Your task to perform on an android device: Clear the cart on newegg.com. Add macbook pro 13 inch to the cart on newegg.com, then select checkout. Image 0: 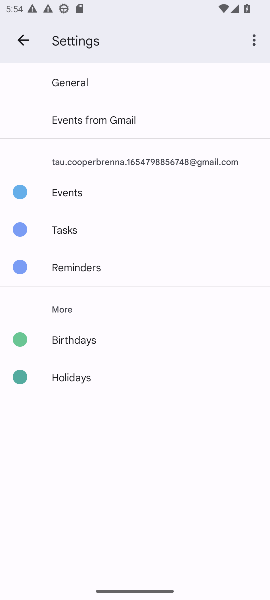
Step 0: press home button
Your task to perform on an android device: Clear the cart on newegg.com. Add macbook pro 13 inch to the cart on newegg.com, then select checkout. Image 1: 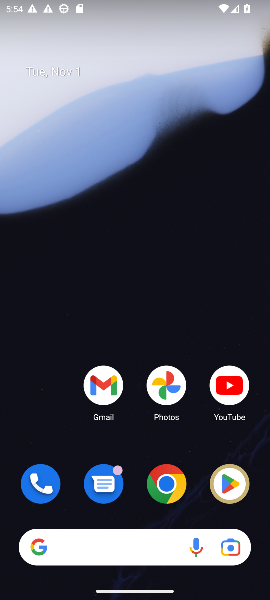
Step 1: click (172, 492)
Your task to perform on an android device: Clear the cart on newegg.com. Add macbook pro 13 inch to the cart on newegg.com, then select checkout. Image 2: 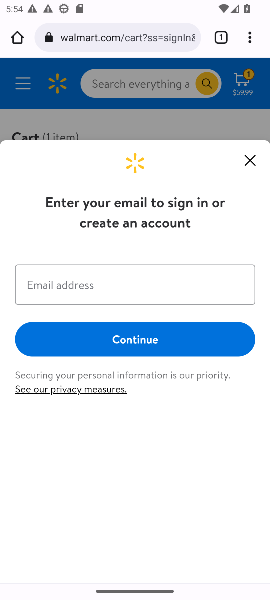
Step 2: click (141, 32)
Your task to perform on an android device: Clear the cart on newegg.com. Add macbook pro 13 inch to the cart on newegg.com, then select checkout. Image 3: 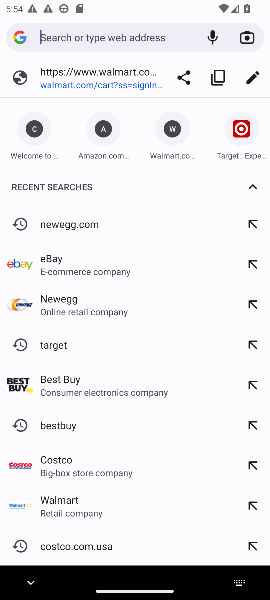
Step 3: type "newegg.com"
Your task to perform on an android device: Clear the cart on newegg.com. Add macbook pro 13 inch to the cart on newegg.com, then select checkout. Image 4: 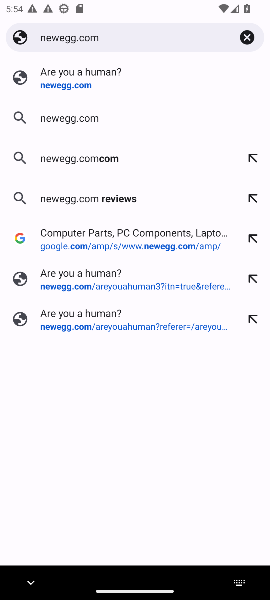
Step 4: click (82, 122)
Your task to perform on an android device: Clear the cart on newegg.com. Add macbook pro 13 inch to the cart on newegg.com, then select checkout. Image 5: 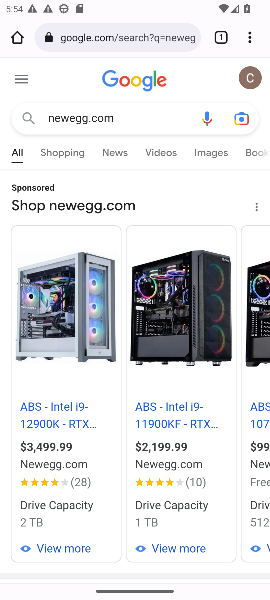
Step 5: drag from (95, 512) to (120, 277)
Your task to perform on an android device: Clear the cart on newegg.com. Add macbook pro 13 inch to the cart on newegg.com, then select checkout. Image 6: 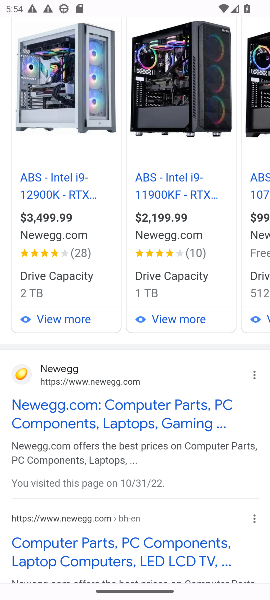
Step 6: click (84, 456)
Your task to perform on an android device: Clear the cart on newegg.com. Add macbook pro 13 inch to the cart on newegg.com, then select checkout. Image 7: 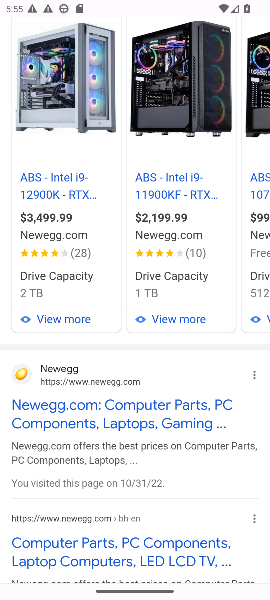
Step 7: click (107, 408)
Your task to perform on an android device: Clear the cart on newegg.com. Add macbook pro 13 inch to the cart on newegg.com, then select checkout. Image 8: 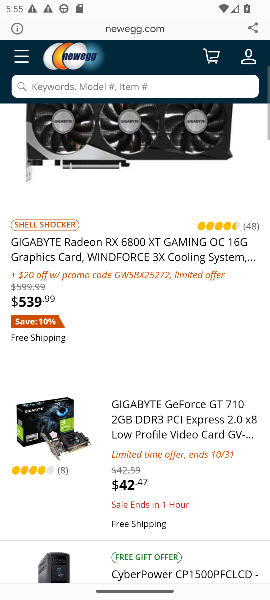
Step 8: click (115, 85)
Your task to perform on an android device: Clear the cart on newegg.com. Add macbook pro 13 inch to the cart on newegg.com, then select checkout. Image 9: 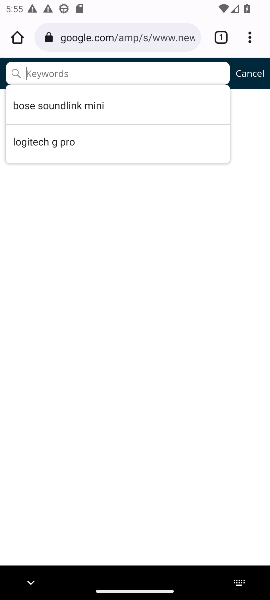
Step 9: type "macbook pro 13 inch"
Your task to perform on an android device: Clear the cart on newegg.com. Add macbook pro 13 inch to the cart on newegg.com, then select checkout. Image 10: 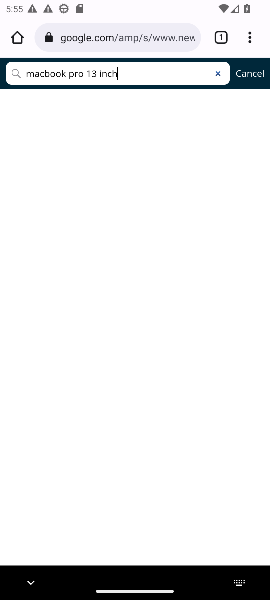
Step 10: click (10, 71)
Your task to perform on an android device: Clear the cart on newegg.com. Add macbook pro 13 inch to the cart on newegg.com, then select checkout. Image 11: 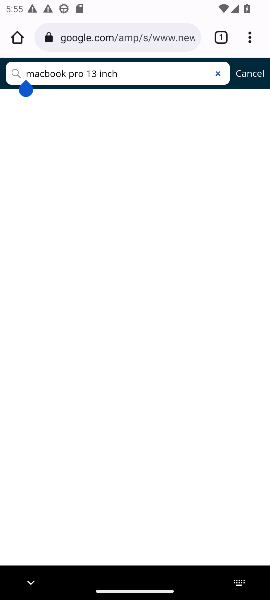
Step 11: click (12, 75)
Your task to perform on an android device: Clear the cart on newegg.com. Add macbook pro 13 inch to the cart on newegg.com, then select checkout. Image 12: 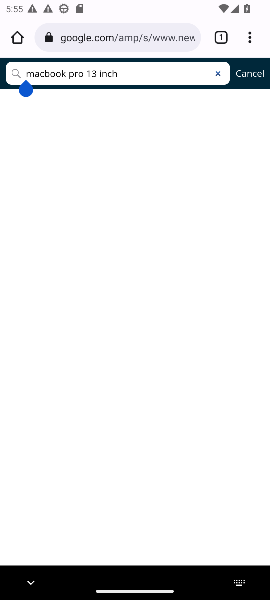
Step 12: click (13, 69)
Your task to perform on an android device: Clear the cart on newegg.com. Add macbook pro 13 inch to the cart on newegg.com, then select checkout. Image 13: 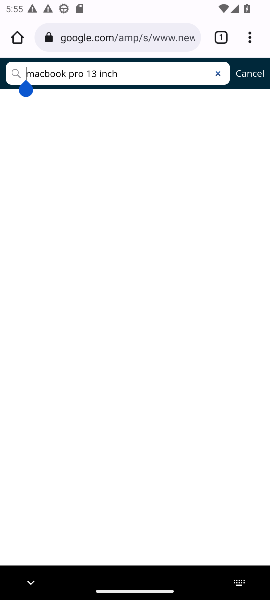
Step 13: click (13, 69)
Your task to perform on an android device: Clear the cart on newegg.com. Add macbook pro 13 inch to the cart on newegg.com, then select checkout. Image 14: 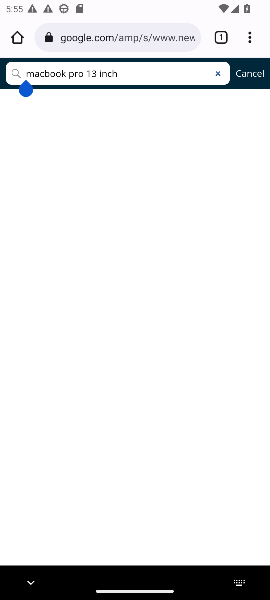
Step 14: task complete